Your task to perform on an android device: star an email in the gmail app Image 0: 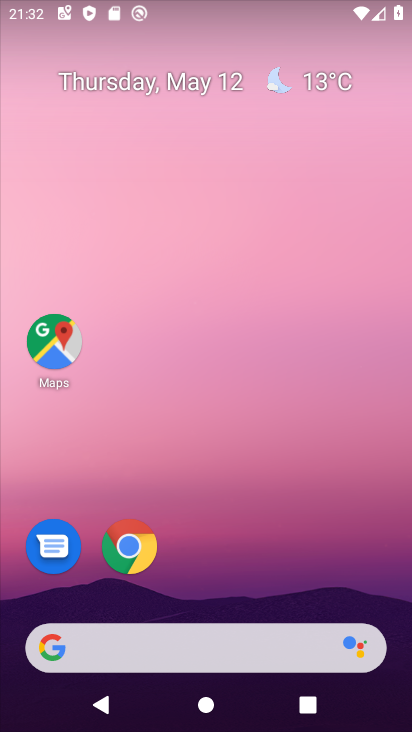
Step 0: drag from (237, 584) to (255, 127)
Your task to perform on an android device: star an email in the gmail app Image 1: 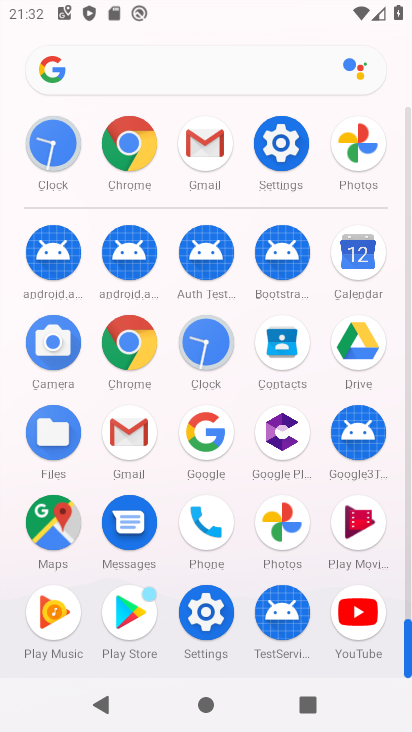
Step 1: click (215, 149)
Your task to perform on an android device: star an email in the gmail app Image 2: 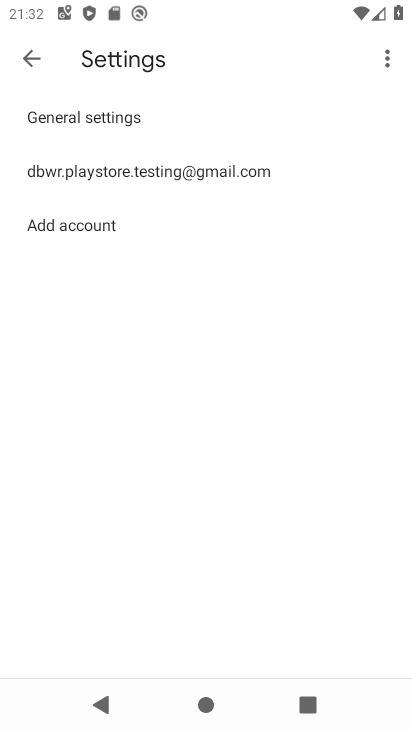
Step 2: click (32, 56)
Your task to perform on an android device: star an email in the gmail app Image 3: 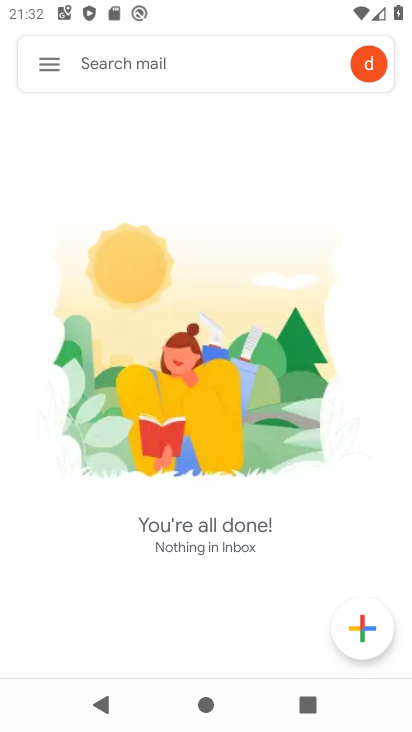
Step 3: click (46, 57)
Your task to perform on an android device: star an email in the gmail app Image 4: 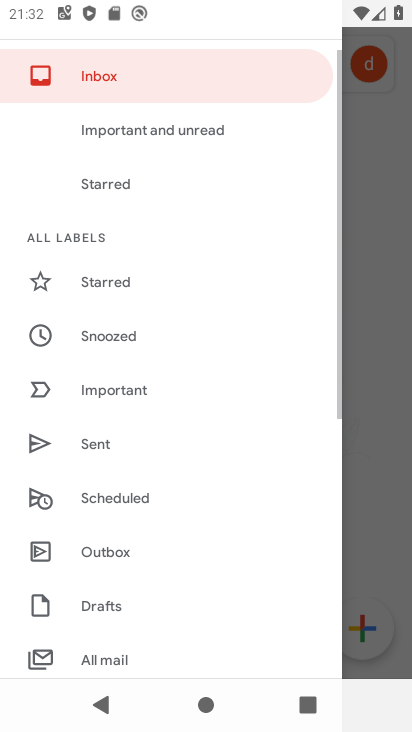
Step 4: click (116, 82)
Your task to perform on an android device: star an email in the gmail app Image 5: 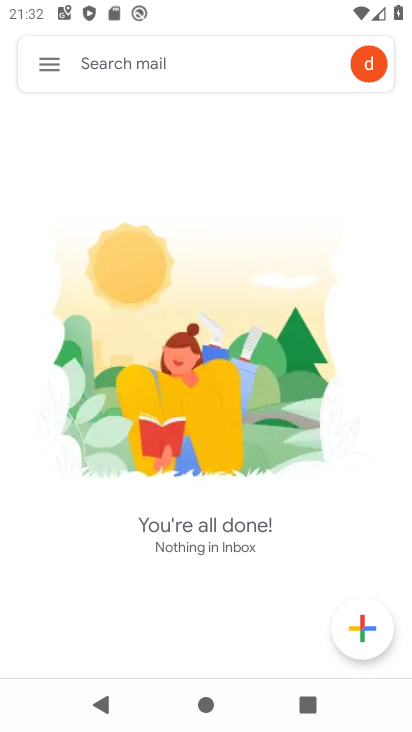
Step 5: task complete